Your task to perform on an android device: set an alarm Image 0: 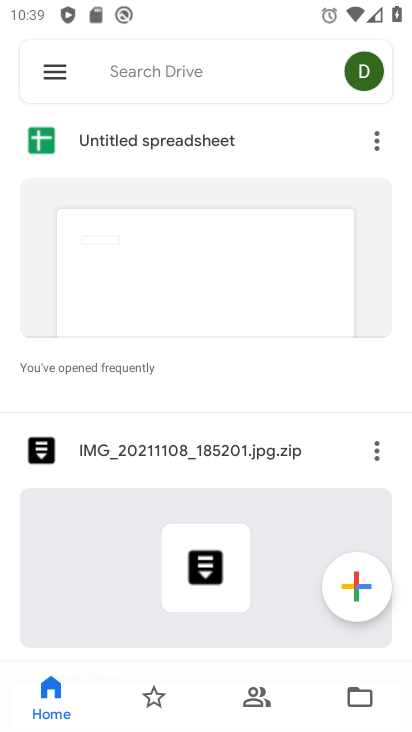
Step 0: press home button
Your task to perform on an android device: set an alarm Image 1: 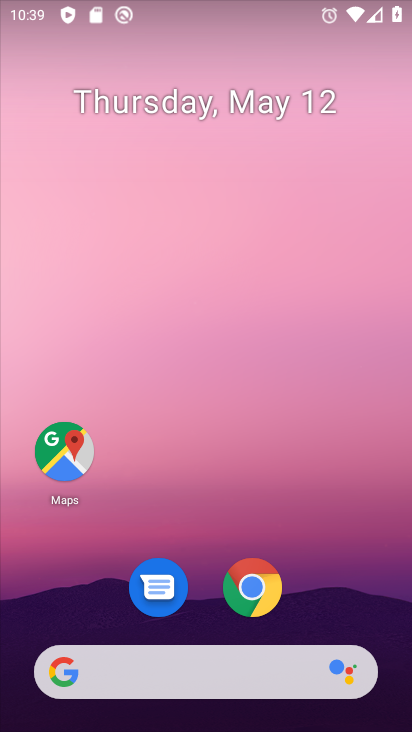
Step 1: drag from (383, 578) to (292, 8)
Your task to perform on an android device: set an alarm Image 2: 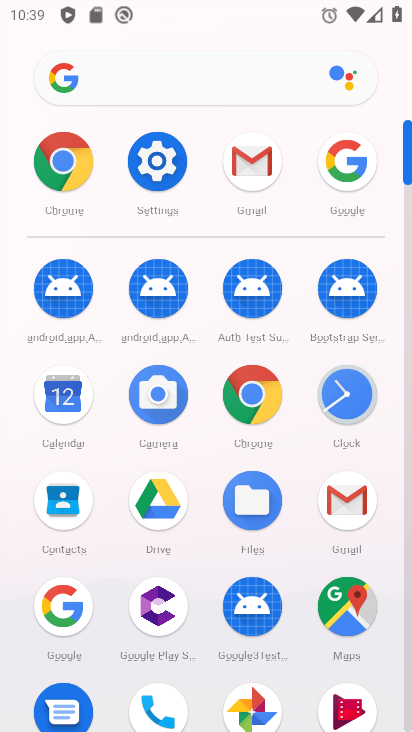
Step 2: click (347, 410)
Your task to perform on an android device: set an alarm Image 3: 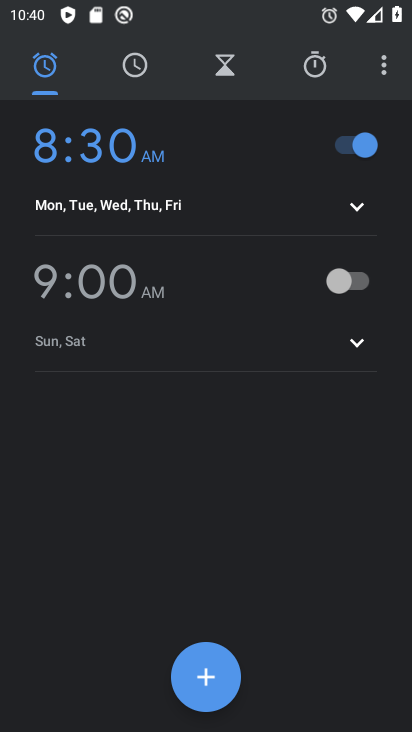
Step 3: click (373, 293)
Your task to perform on an android device: set an alarm Image 4: 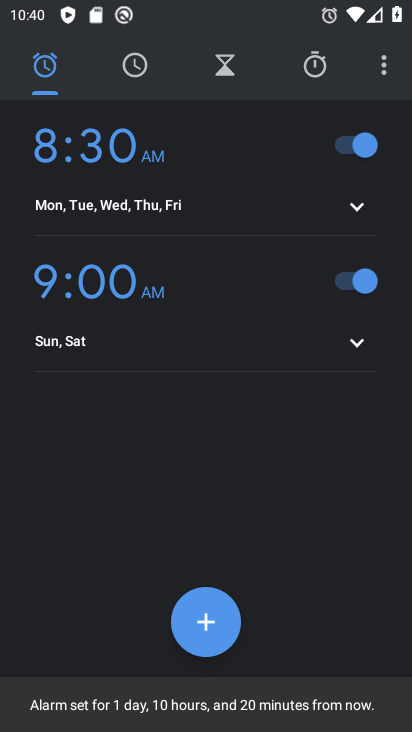
Step 4: task complete